Your task to perform on an android device: change the clock display to show seconds Image 0: 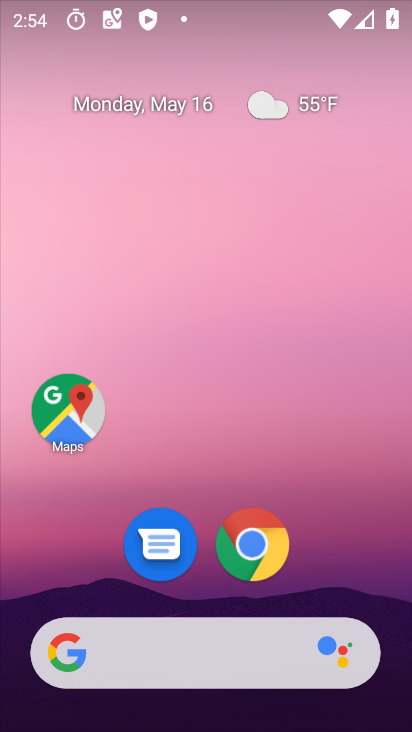
Step 0: drag from (360, 570) to (293, 70)
Your task to perform on an android device: change the clock display to show seconds Image 1: 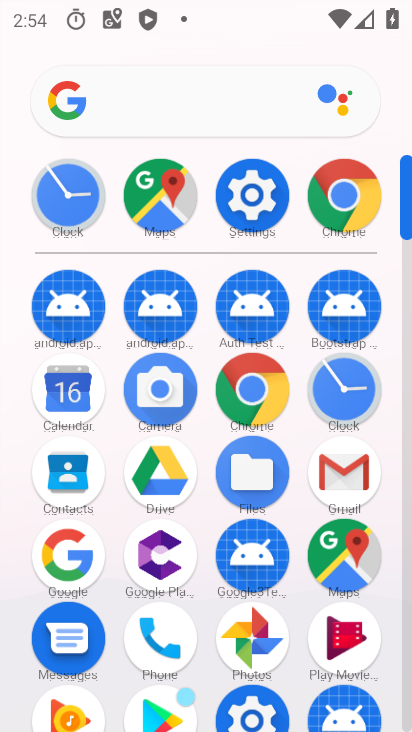
Step 1: click (38, 214)
Your task to perform on an android device: change the clock display to show seconds Image 2: 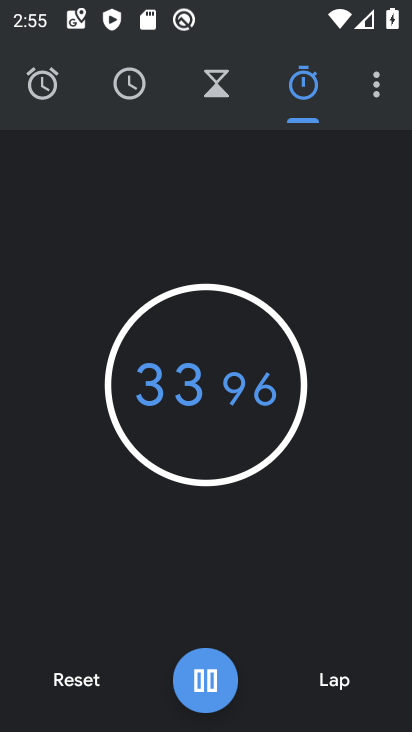
Step 2: click (370, 98)
Your task to perform on an android device: change the clock display to show seconds Image 3: 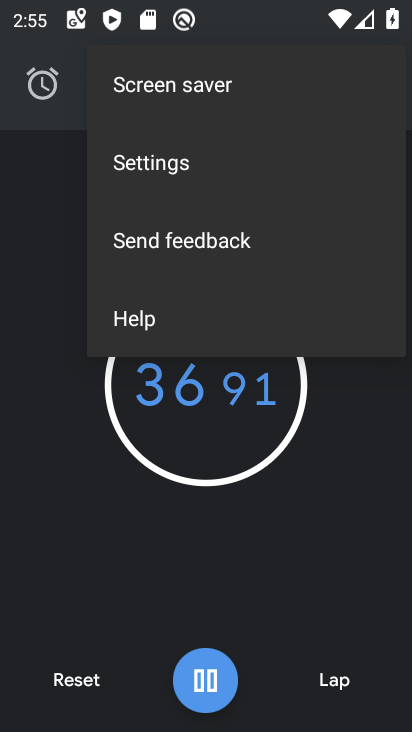
Step 3: click (164, 152)
Your task to perform on an android device: change the clock display to show seconds Image 4: 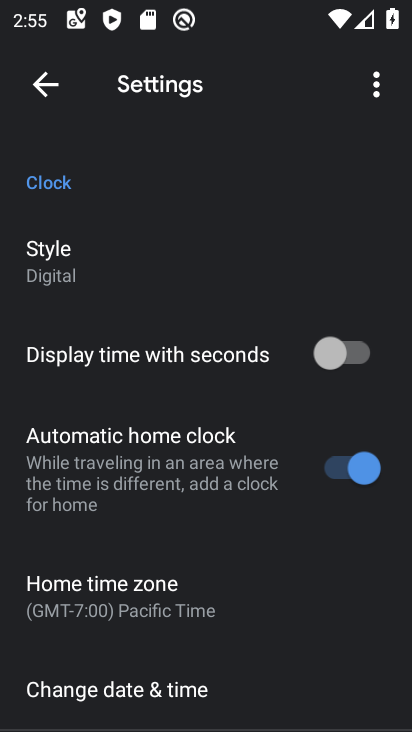
Step 4: click (344, 364)
Your task to perform on an android device: change the clock display to show seconds Image 5: 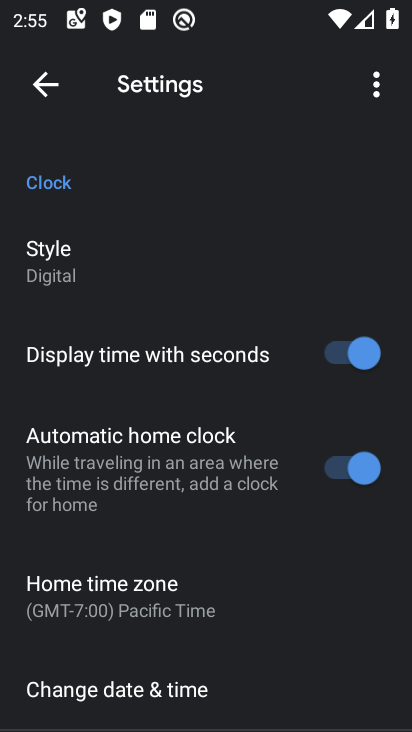
Step 5: task complete